Your task to perform on an android device: change notification settings in the gmail app Image 0: 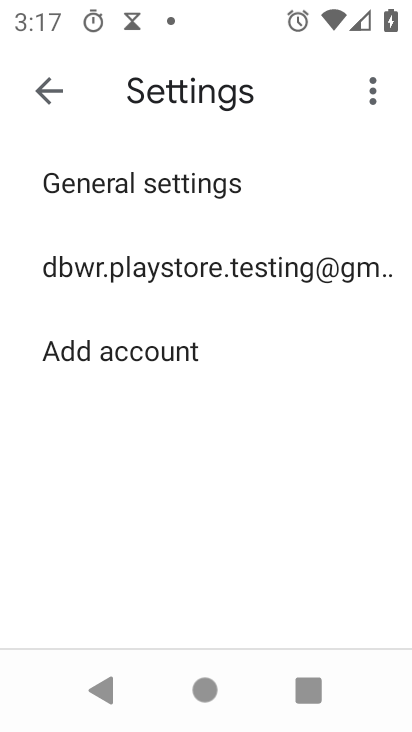
Step 0: press home button
Your task to perform on an android device: change notification settings in the gmail app Image 1: 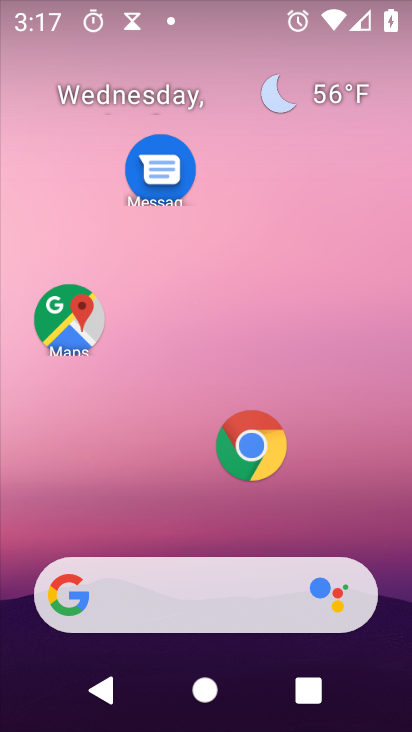
Step 1: drag from (30, 538) to (236, 131)
Your task to perform on an android device: change notification settings in the gmail app Image 2: 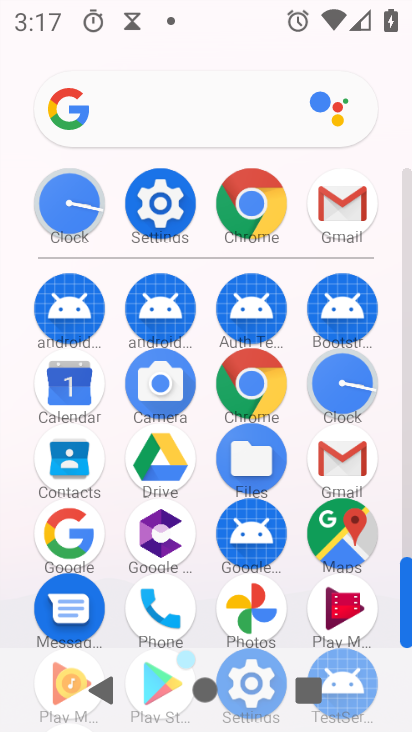
Step 2: click (180, 203)
Your task to perform on an android device: change notification settings in the gmail app Image 3: 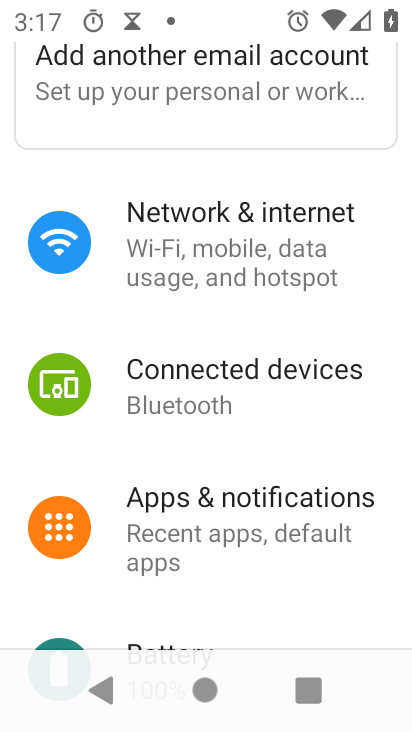
Step 3: click (251, 534)
Your task to perform on an android device: change notification settings in the gmail app Image 4: 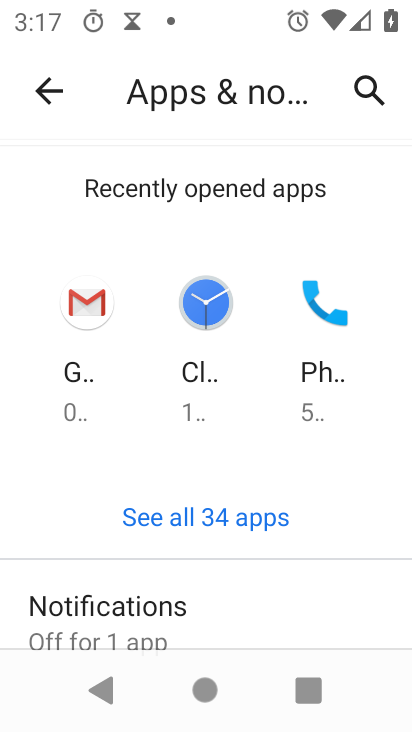
Step 4: drag from (4, 426) to (110, 148)
Your task to perform on an android device: change notification settings in the gmail app Image 5: 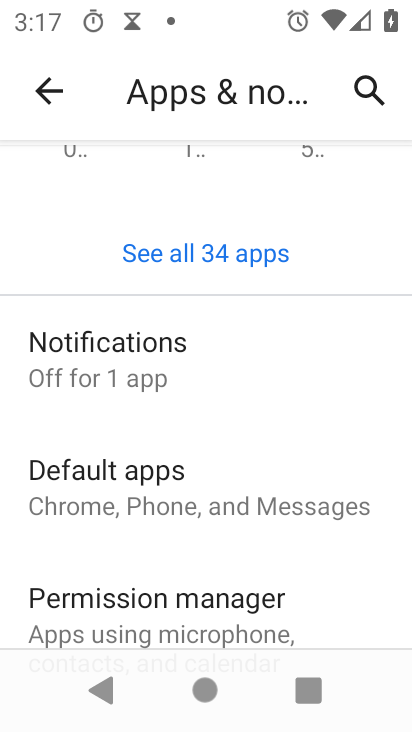
Step 5: click (147, 363)
Your task to perform on an android device: change notification settings in the gmail app Image 6: 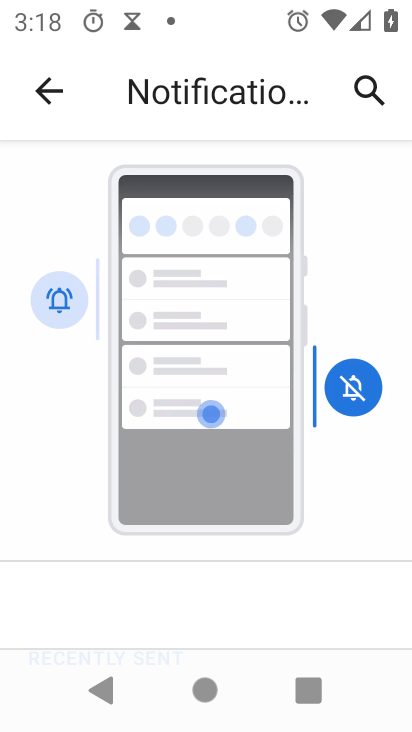
Step 6: task complete